Your task to perform on an android device: turn off javascript in the chrome app Image 0: 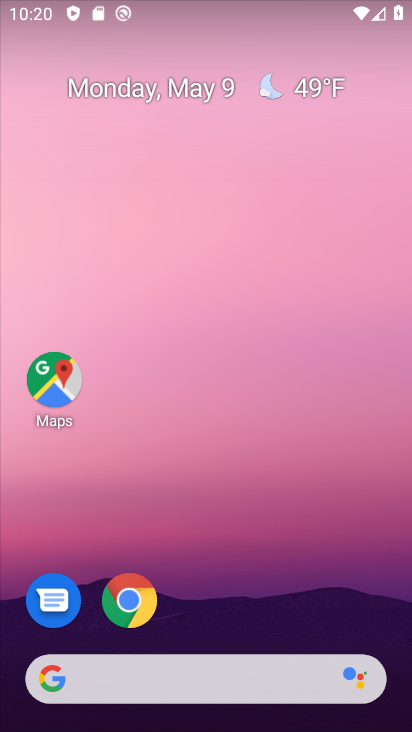
Step 0: drag from (365, 580) to (311, 116)
Your task to perform on an android device: turn off javascript in the chrome app Image 1: 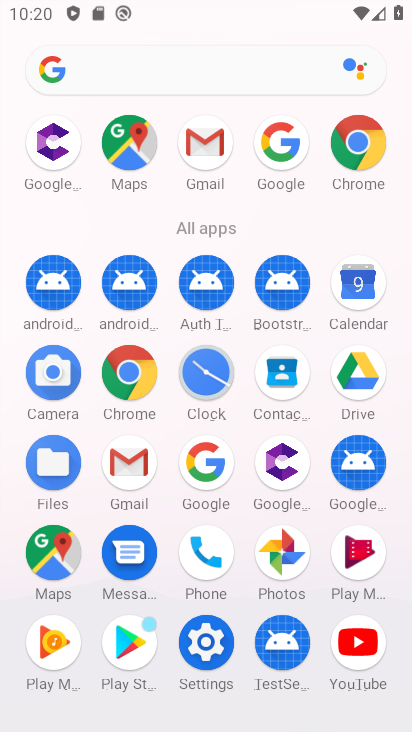
Step 1: click (134, 353)
Your task to perform on an android device: turn off javascript in the chrome app Image 2: 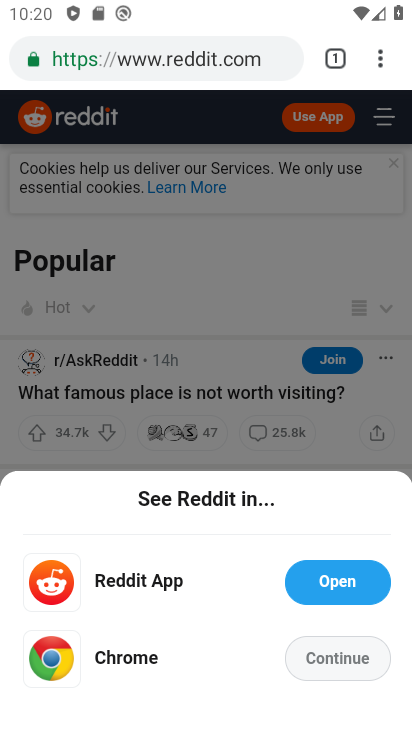
Step 2: drag from (380, 62) to (275, 638)
Your task to perform on an android device: turn off javascript in the chrome app Image 3: 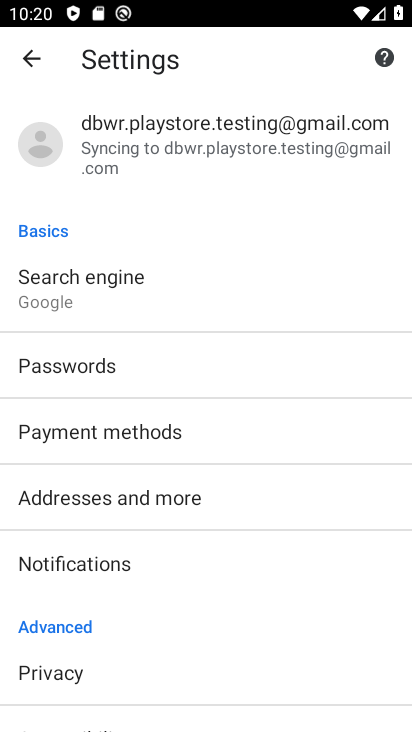
Step 3: drag from (233, 625) to (251, 348)
Your task to perform on an android device: turn off javascript in the chrome app Image 4: 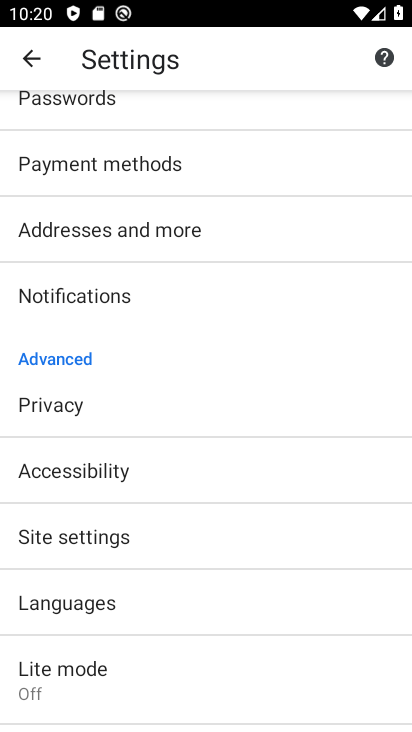
Step 4: click (204, 531)
Your task to perform on an android device: turn off javascript in the chrome app Image 5: 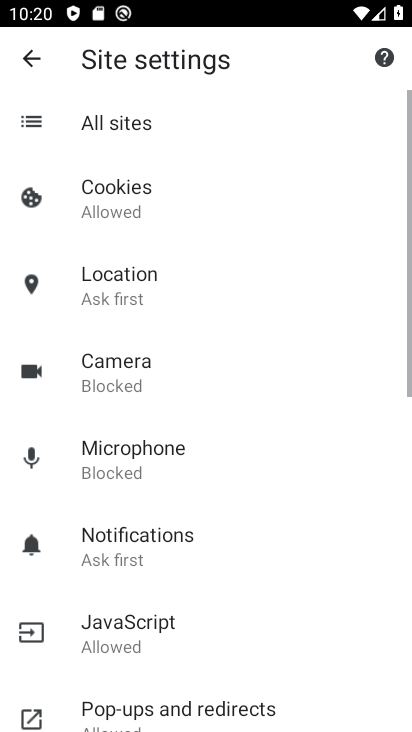
Step 5: drag from (329, 647) to (332, 404)
Your task to perform on an android device: turn off javascript in the chrome app Image 6: 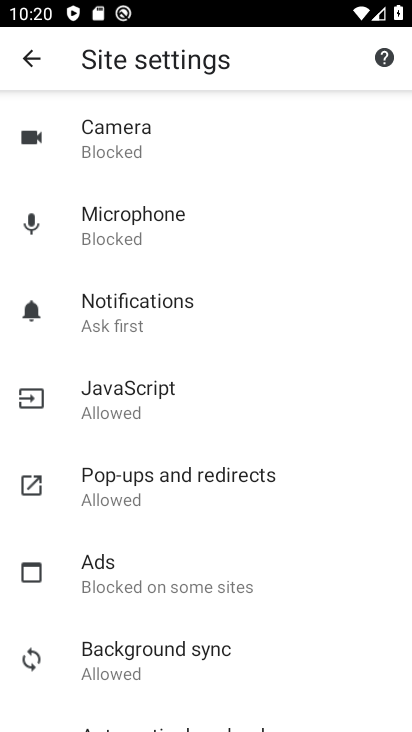
Step 6: click (201, 391)
Your task to perform on an android device: turn off javascript in the chrome app Image 7: 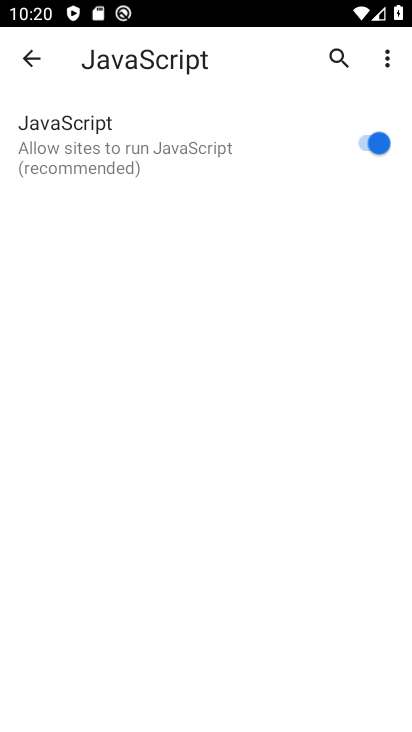
Step 7: click (364, 144)
Your task to perform on an android device: turn off javascript in the chrome app Image 8: 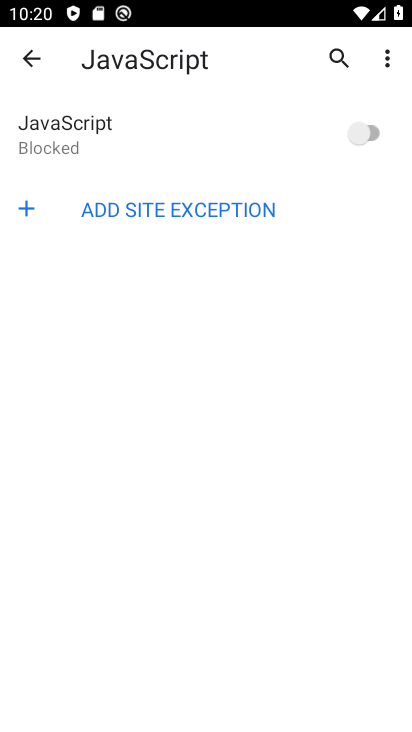
Step 8: task complete